Your task to perform on an android device: Open calendar and show me the second week of next month Image 0: 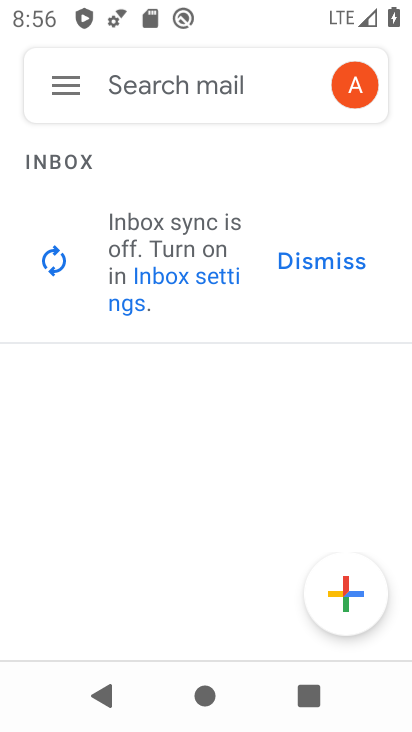
Step 0: press back button
Your task to perform on an android device: Open calendar and show me the second week of next month Image 1: 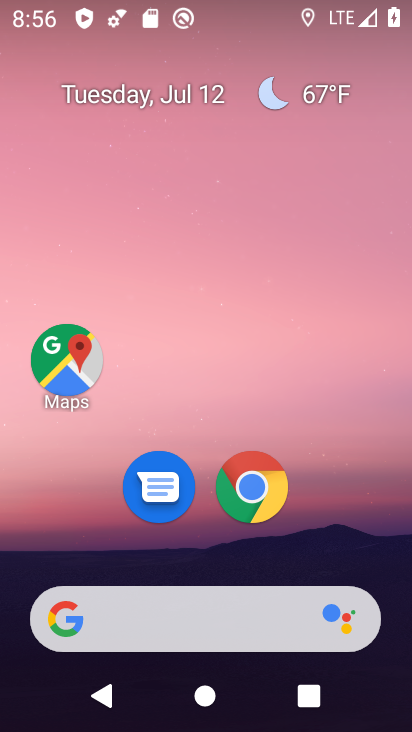
Step 1: drag from (213, 560) to (249, 1)
Your task to perform on an android device: Open calendar and show me the second week of next month Image 2: 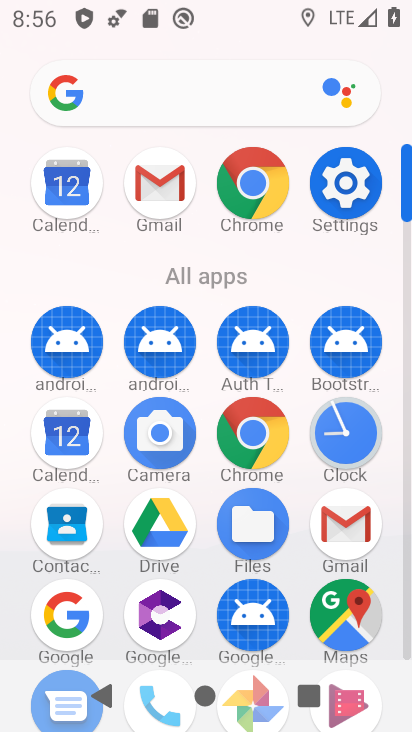
Step 2: click (62, 439)
Your task to perform on an android device: Open calendar and show me the second week of next month Image 3: 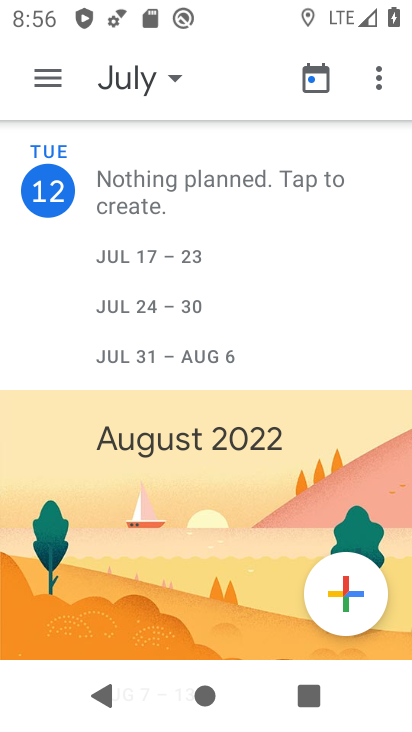
Step 3: click (160, 77)
Your task to perform on an android device: Open calendar and show me the second week of next month Image 4: 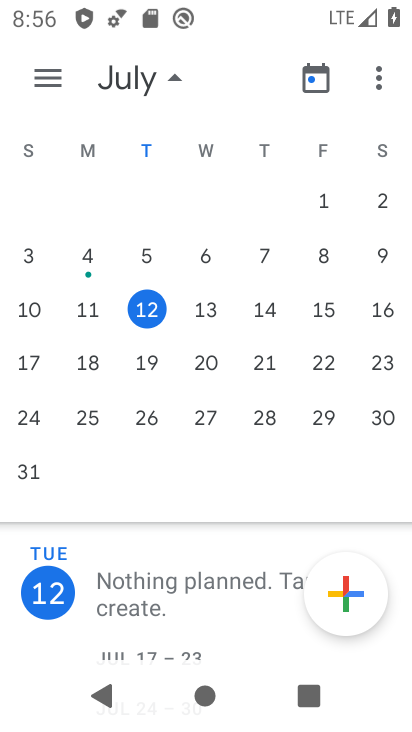
Step 4: drag from (398, 323) to (12, 367)
Your task to perform on an android device: Open calendar and show me the second week of next month Image 5: 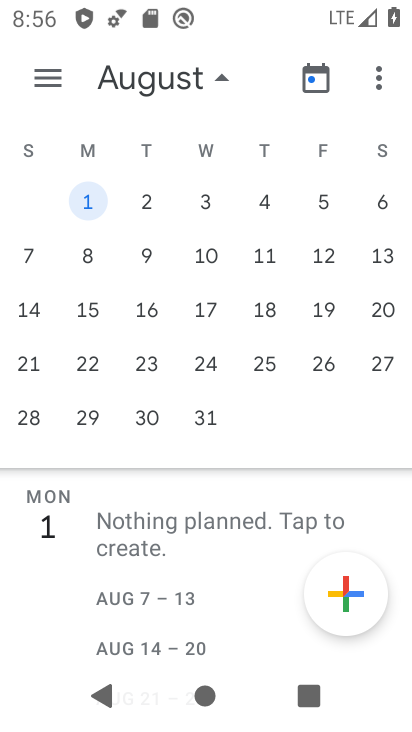
Step 5: click (85, 248)
Your task to perform on an android device: Open calendar and show me the second week of next month Image 6: 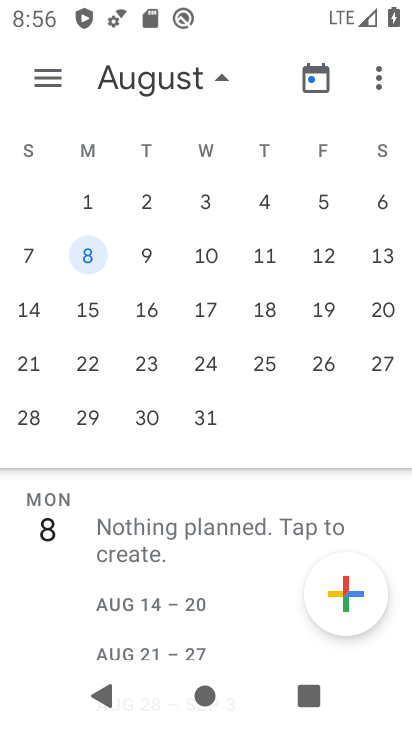
Step 6: task complete